Your task to perform on an android device: What's the weather? Image 0: 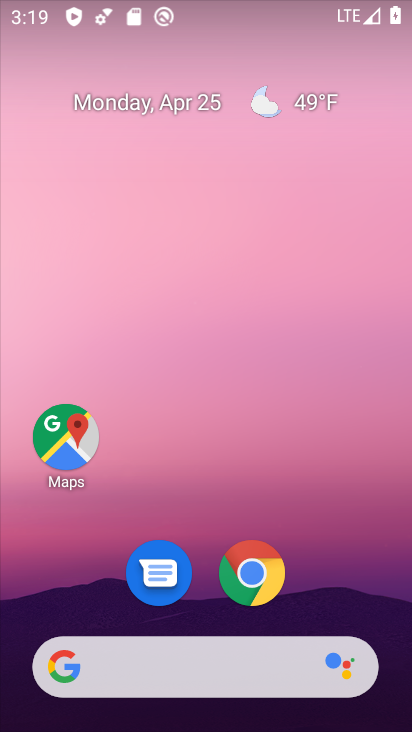
Step 0: click (296, 96)
Your task to perform on an android device: What's the weather? Image 1: 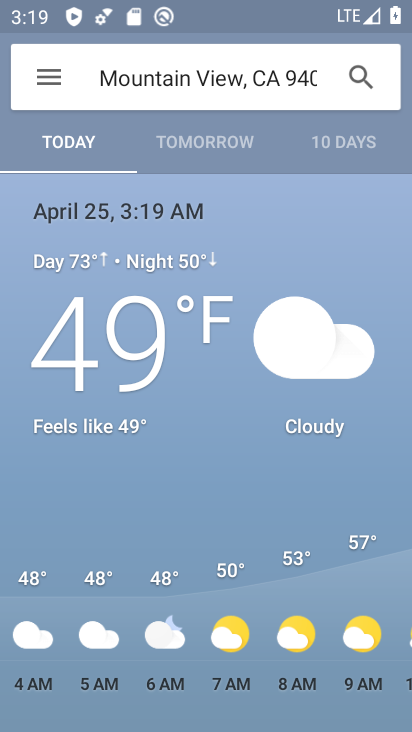
Step 1: task complete